Your task to perform on an android device: toggle javascript in the chrome app Image 0: 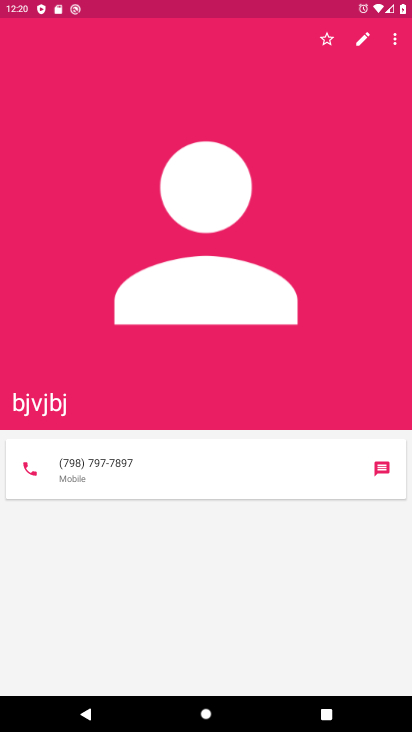
Step 0: press home button
Your task to perform on an android device: toggle javascript in the chrome app Image 1: 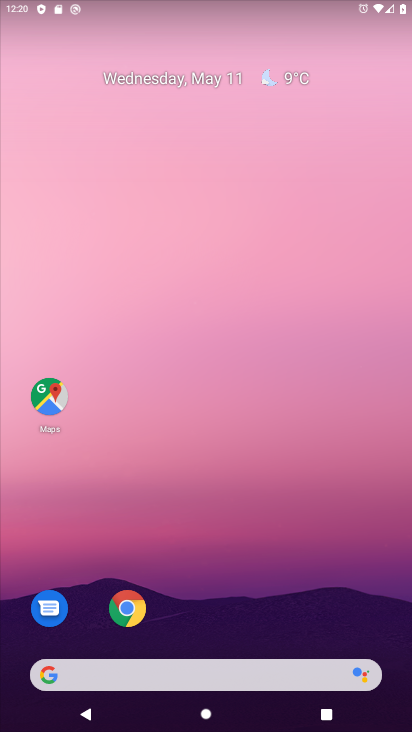
Step 1: drag from (296, 643) to (269, 344)
Your task to perform on an android device: toggle javascript in the chrome app Image 2: 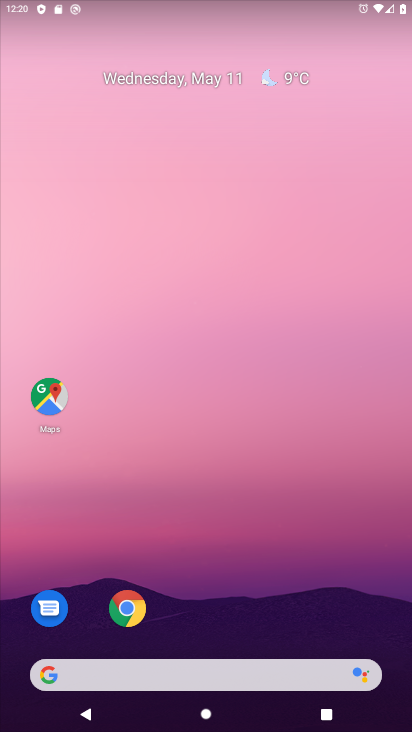
Step 2: drag from (272, 571) to (210, 171)
Your task to perform on an android device: toggle javascript in the chrome app Image 3: 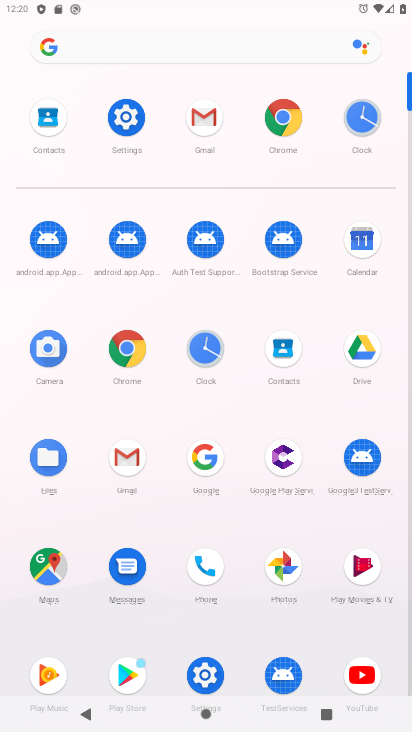
Step 3: click (146, 368)
Your task to perform on an android device: toggle javascript in the chrome app Image 4: 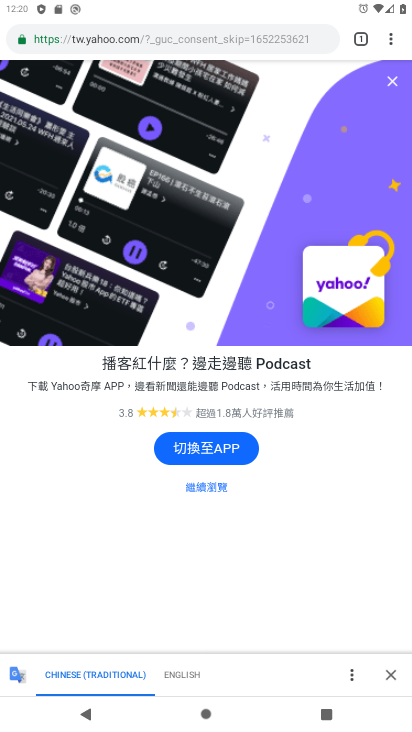
Step 4: click (396, 40)
Your task to perform on an android device: toggle javascript in the chrome app Image 5: 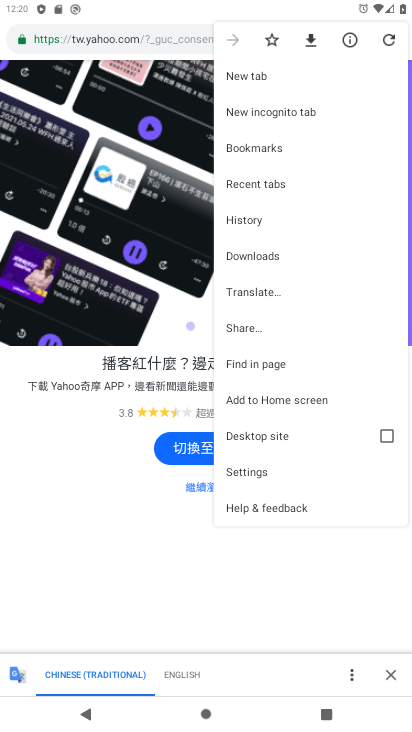
Step 5: click (264, 467)
Your task to perform on an android device: toggle javascript in the chrome app Image 6: 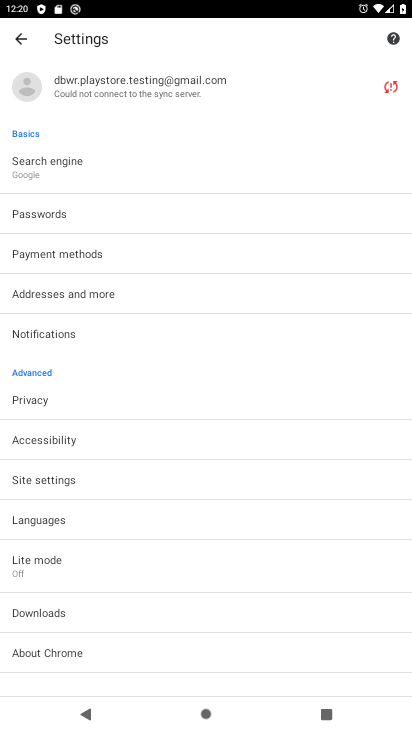
Step 6: drag from (264, 468) to (309, 190)
Your task to perform on an android device: toggle javascript in the chrome app Image 7: 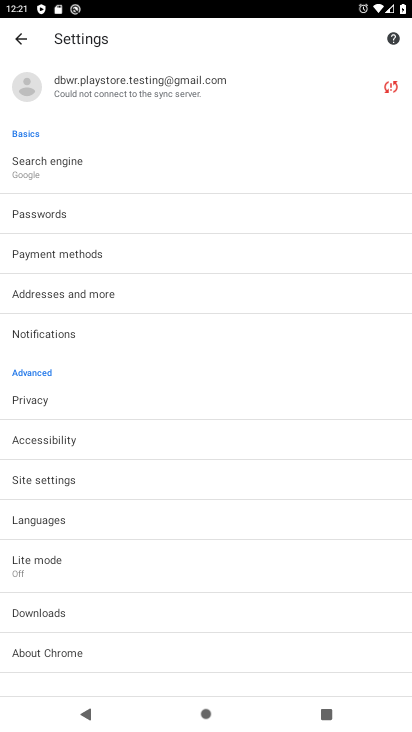
Step 7: click (54, 487)
Your task to perform on an android device: toggle javascript in the chrome app Image 8: 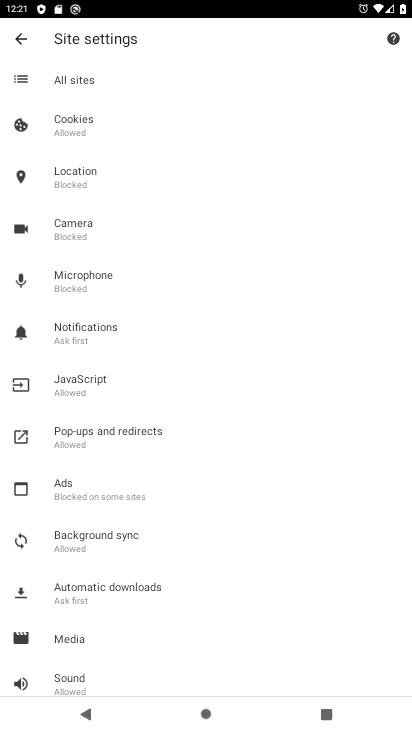
Step 8: click (150, 390)
Your task to perform on an android device: toggle javascript in the chrome app Image 9: 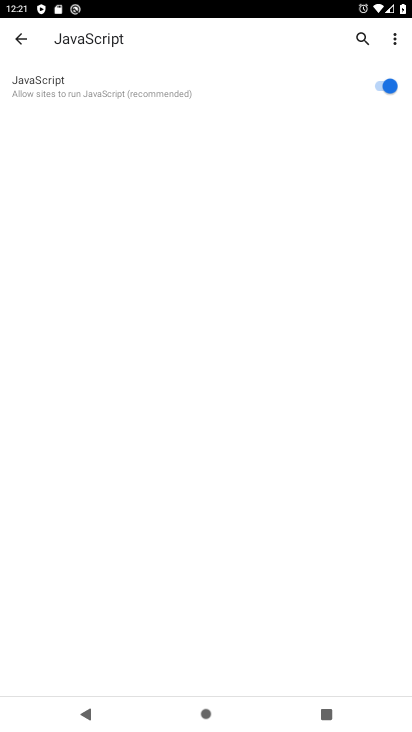
Step 9: click (390, 83)
Your task to perform on an android device: toggle javascript in the chrome app Image 10: 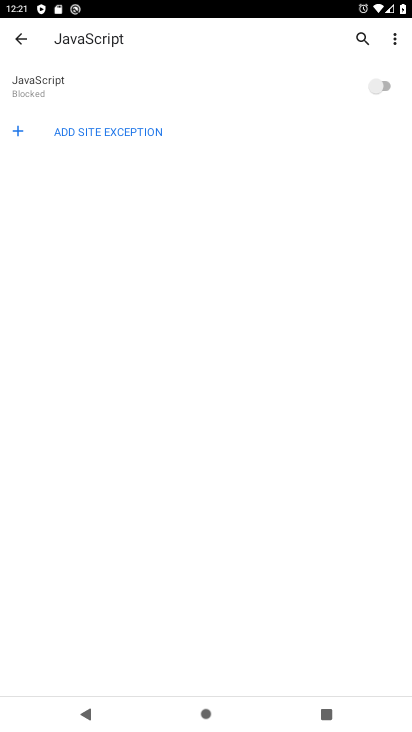
Step 10: click (390, 83)
Your task to perform on an android device: toggle javascript in the chrome app Image 11: 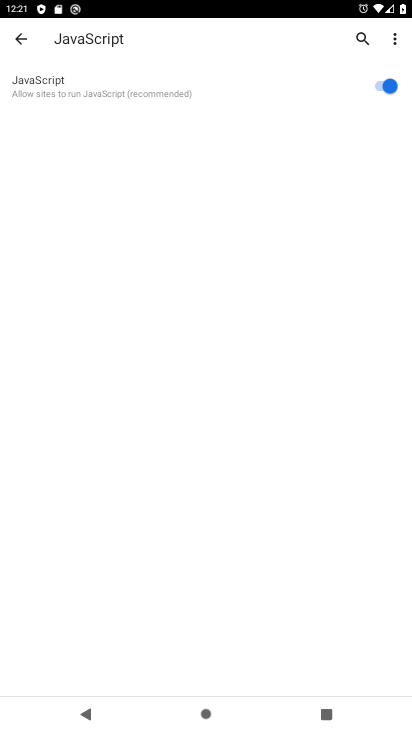
Step 11: click (390, 83)
Your task to perform on an android device: toggle javascript in the chrome app Image 12: 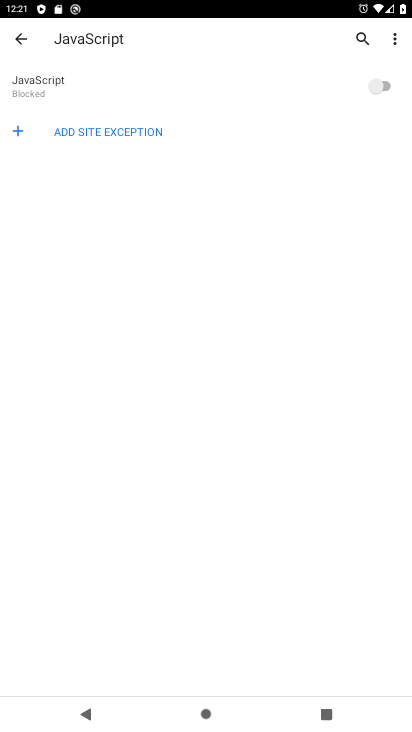
Step 12: task complete